Your task to perform on an android device: change alarm snooze length Image 0: 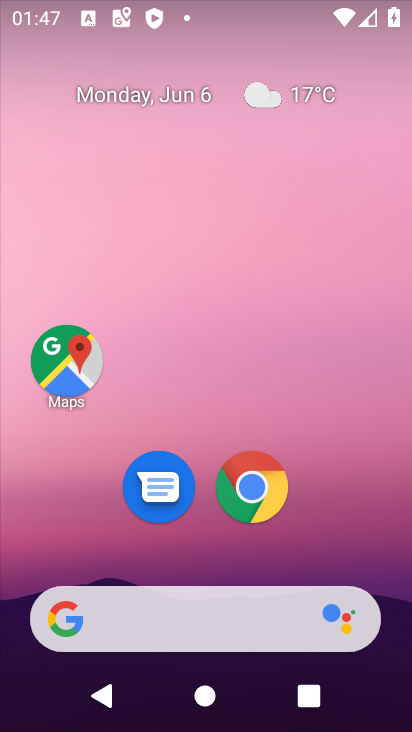
Step 0: drag from (408, 624) to (306, 12)
Your task to perform on an android device: change alarm snooze length Image 1: 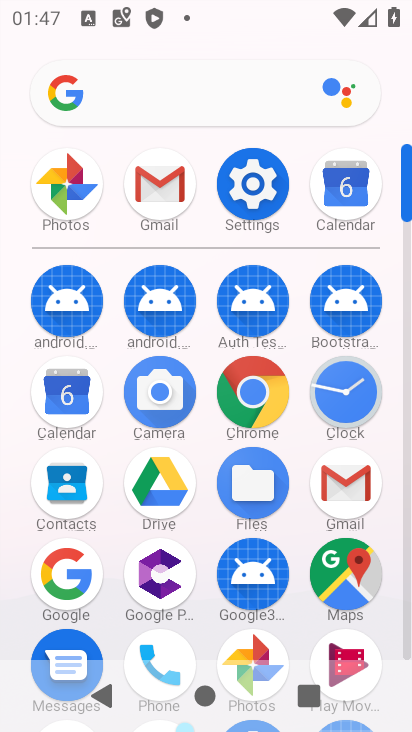
Step 1: click (409, 631)
Your task to perform on an android device: change alarm snooze length Image 2: 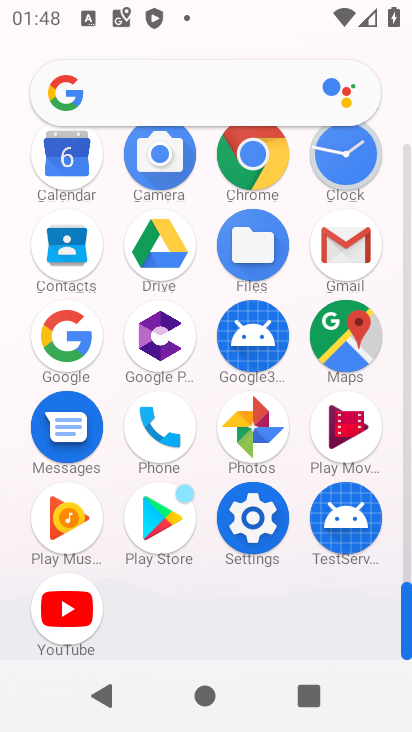
Step 2: click (343, 153)
Your task to perform on an android device: change alarm snooze length Image 3: 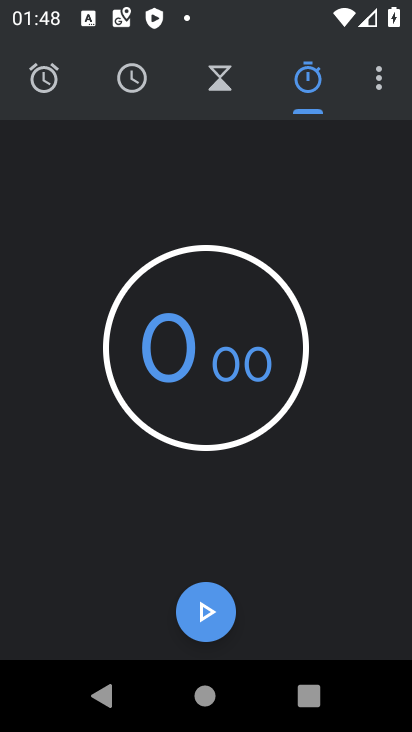
Step 3: click (374, 85)
Your task to perform on an android device: change alarm snooze length Image 4: 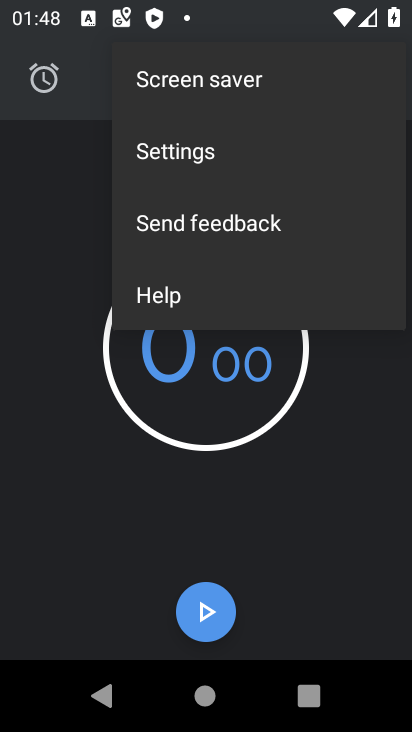
Step 4: click (196, 160)
Your task to perform on an android device: change alarm snooze length Image 5: 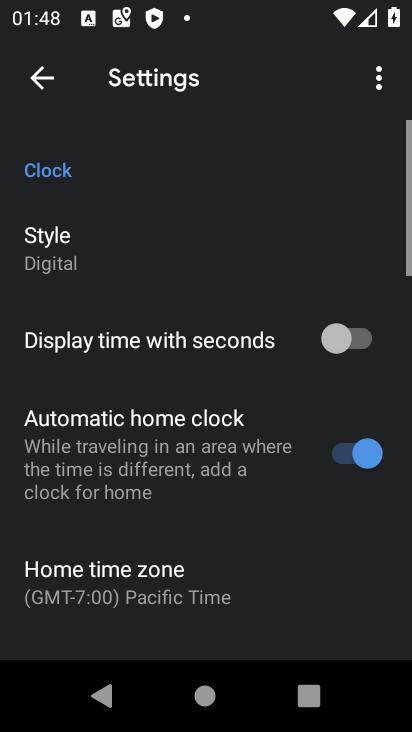
Step 5: drag from (286, 604) to (260, 159)
Your task to perform on an android device: change alarm snooze length Image 6: 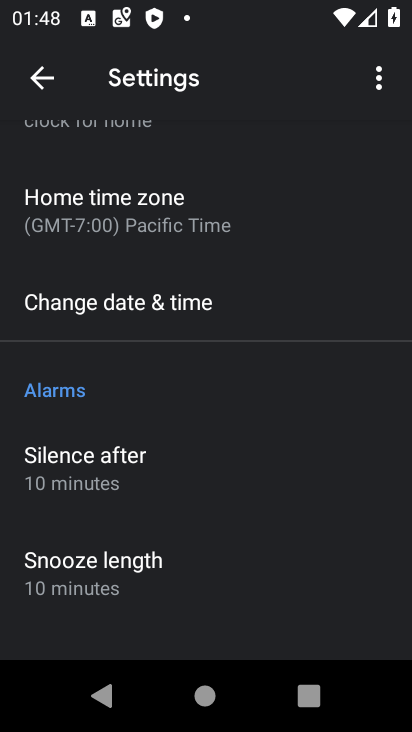
Step 6: drag from (233, 581) to (270, 193)
Your task to perform on an android device: change alarm snooze length Image 7: 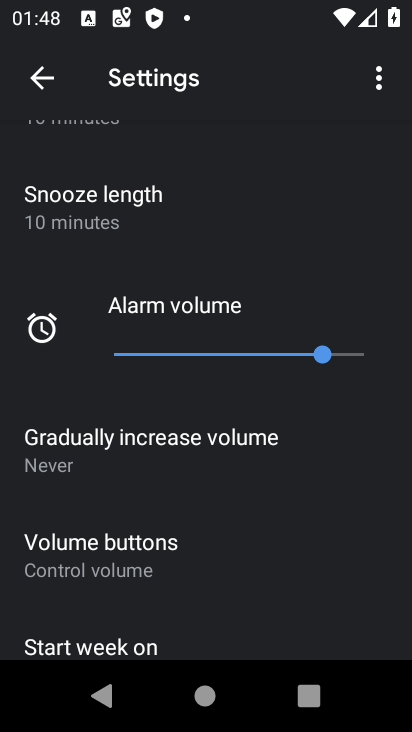
Step 7: click (76, 214)
Your task to perform on an android device: change alarm snooze length Image 8: 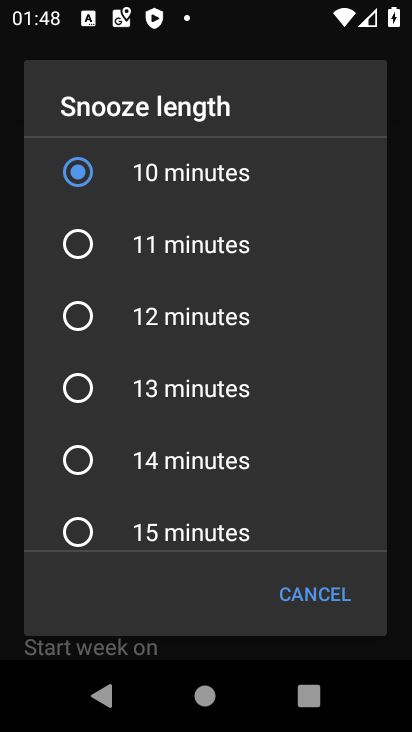
Step 8: click (82, 525)
Your task to perform on an android device: change alarm snooze length Image 9: 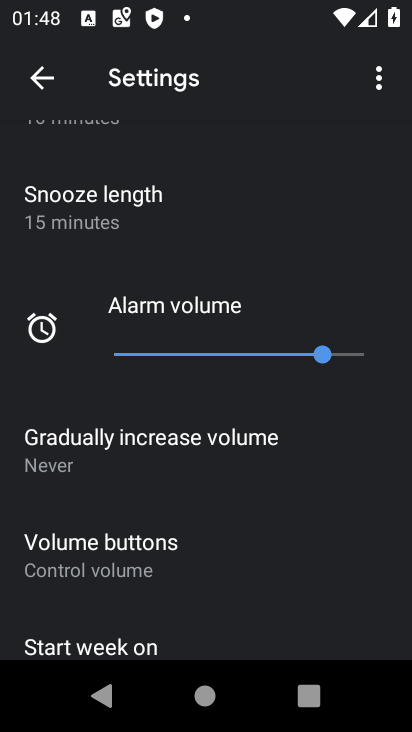
Step 9: task complete